Your task to perform on an android device: Open CNN.com Image 0: 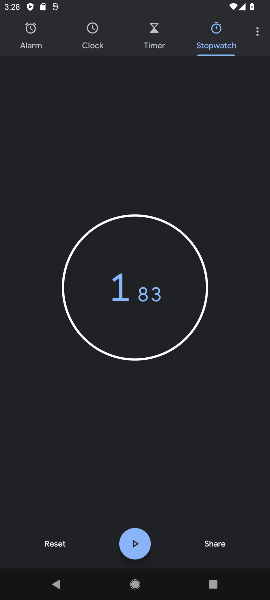
Step 0: press home button
Your task to perform on an android device: Open CNN.com Image 1: 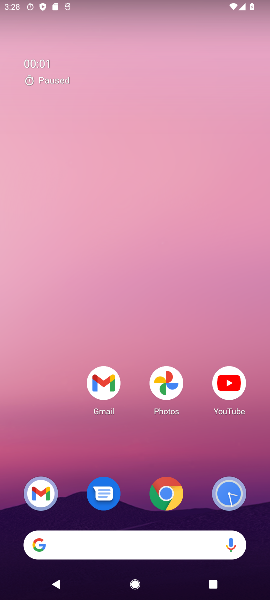
Step 1: click (80, 544)
Your task to perform on an android device: Open CNN.com Image 2: 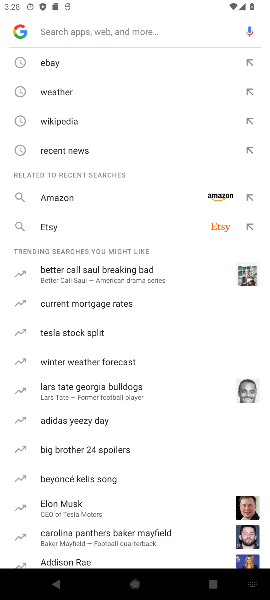
Step 2: type "CNN.com"
Your task to perform on an android device: Open CNN.com Image 3: 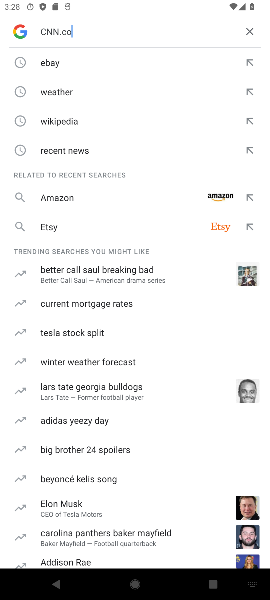
Step 3: type ""
Your task to perform on an android device: Open CNN.com Image 4: 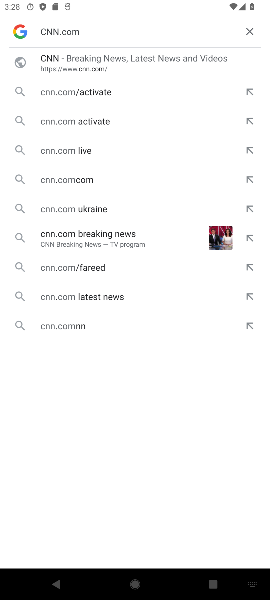
Step 4: click (39, 54)
Your task to perform on an android device: Open CNN.com Image 5: 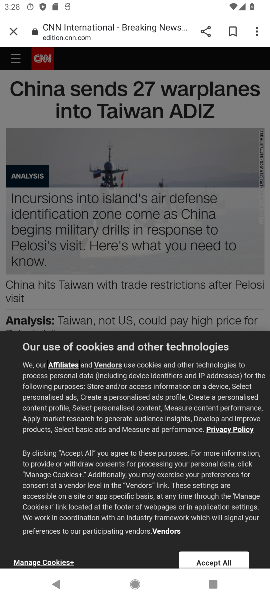
Step 5: task complete